Your task to perform on an android device: move a message to another label in the gmail app Image 0: 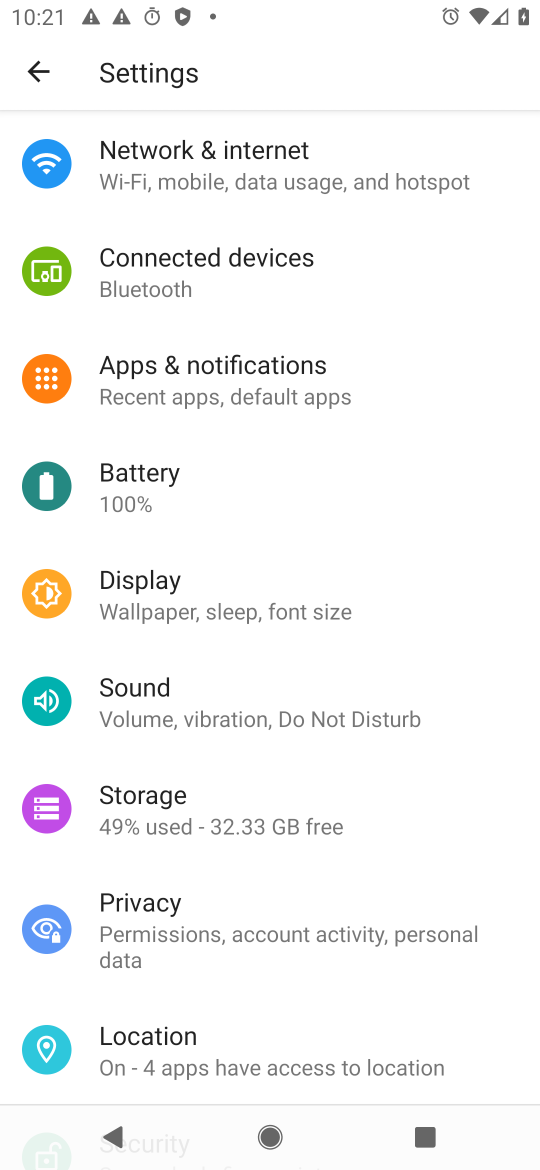
Step 0: drag from (267, 1018) to (288, 352)
Your task to perform on an android device: move a message to another label in the gmail app Image 1: 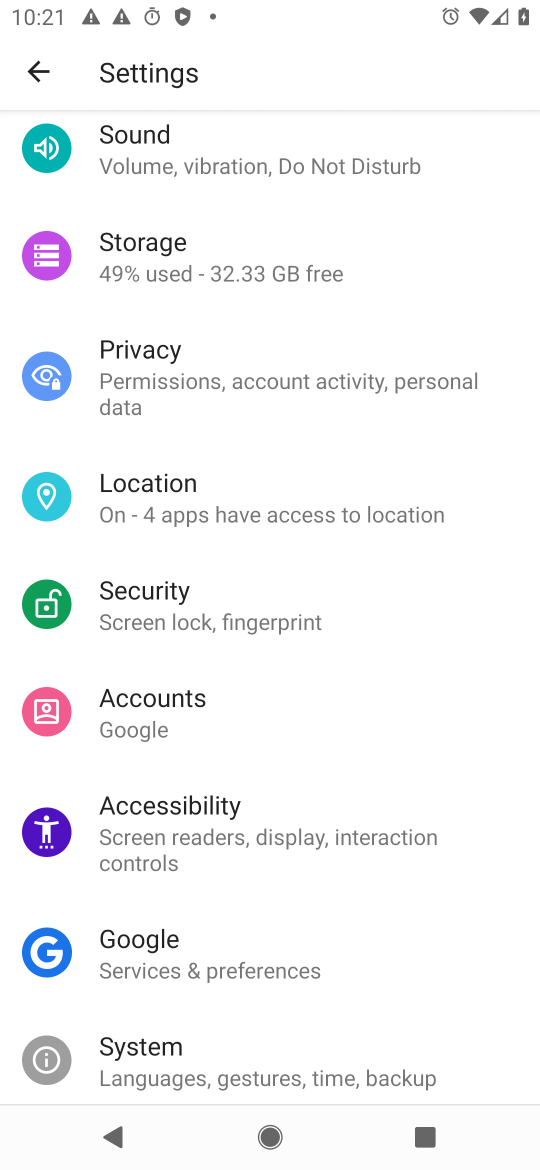
Step 1: press home button
Your task to perform on an android device: move a message to another label in the gmail app Image 2: 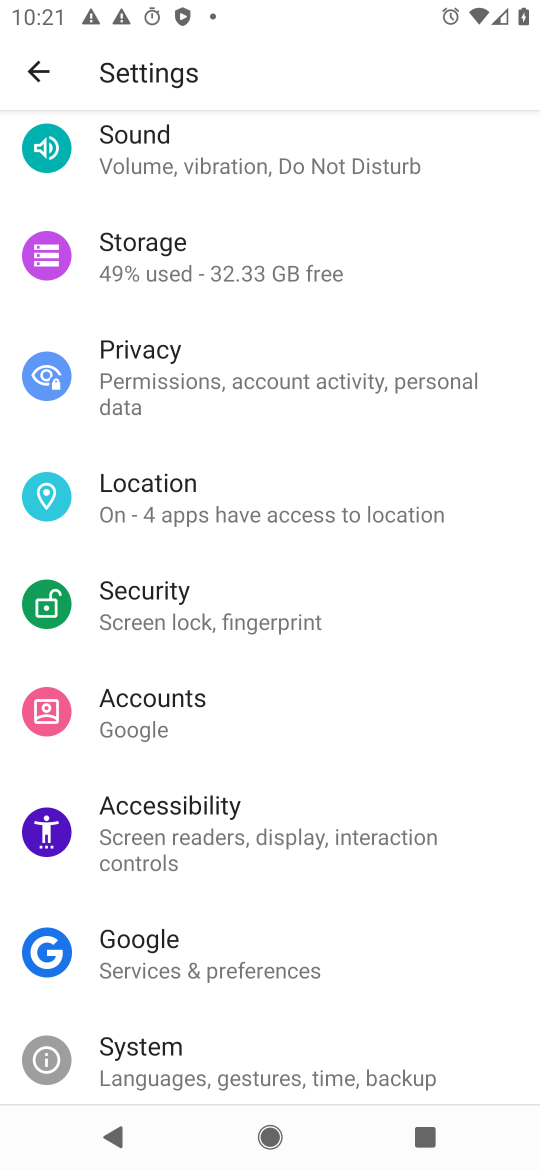
Step 2: drag from (137, 845) to (238, 219)
Your task to perform on an android device: move a message to another label in the gmail app Image 3: 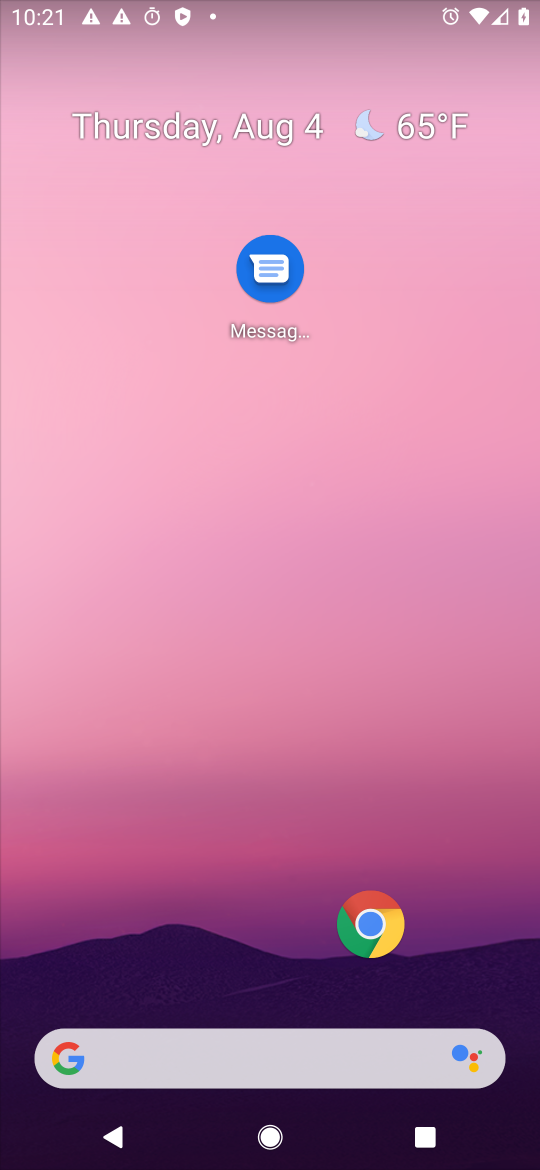
Step 3: drag from (286, 1022) to (321, 272)
Your task to perform on an android device: move a message to another label in the gmail app Image 4: 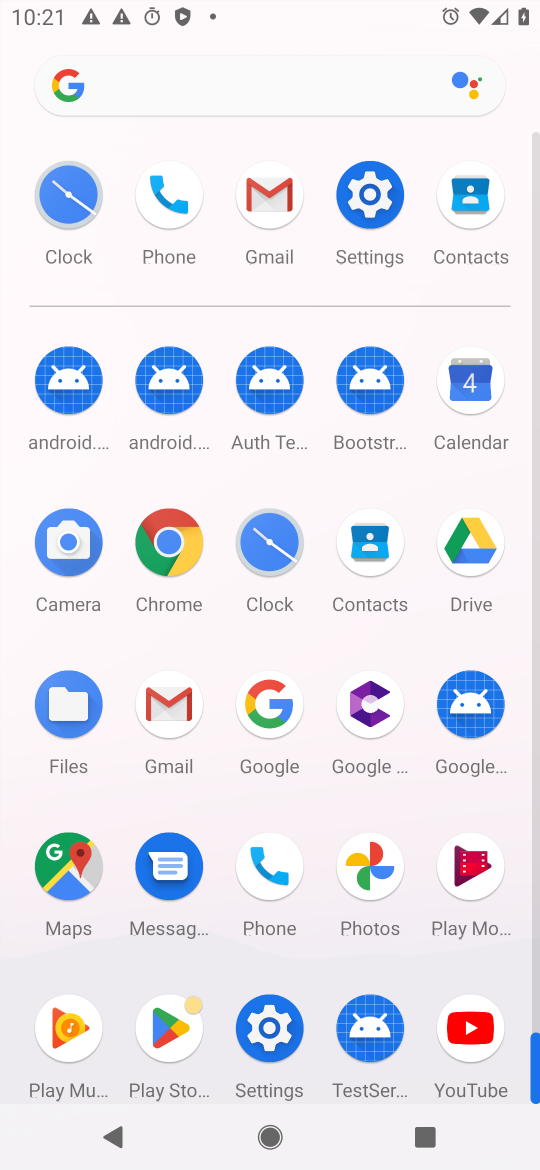
Step 4: click (167, 693)
Your task to perform on an android device: move a message to another label in the gmail app Image 5: 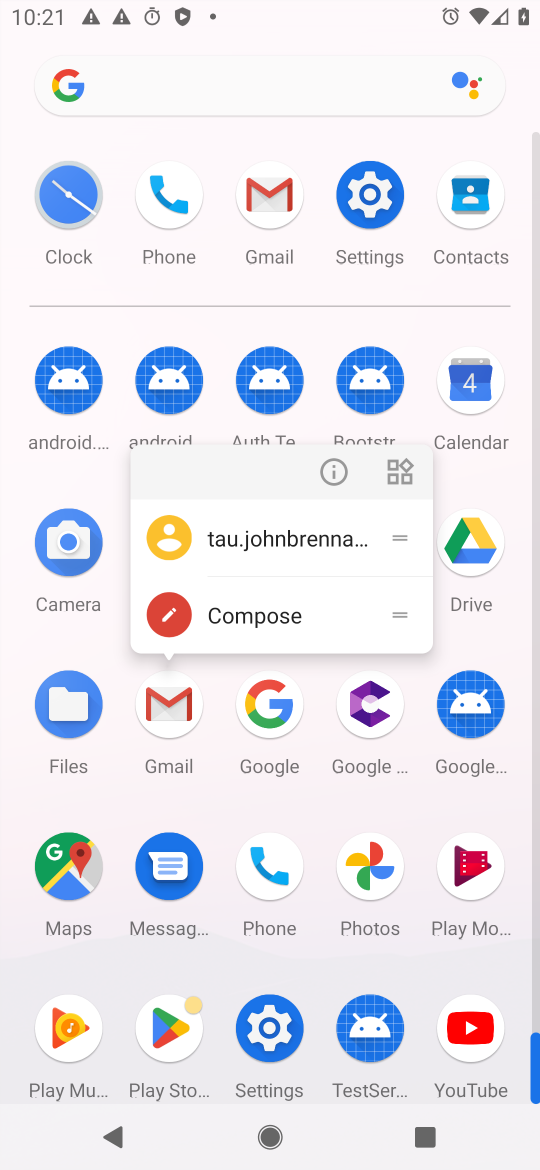
Step 5: click (320, 465)
Your task to perform on an android device: move a message to another label in the gmail app Image 6: 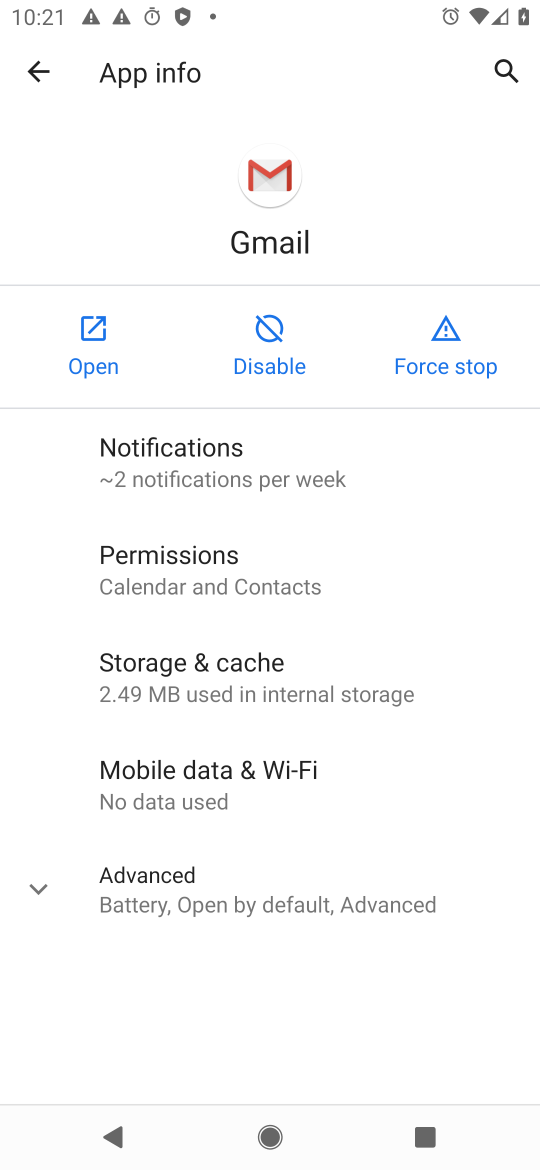
Step 6: click (80, 348)
Your task to perform on an android device: move a message to another label in the gmail app Image 7: 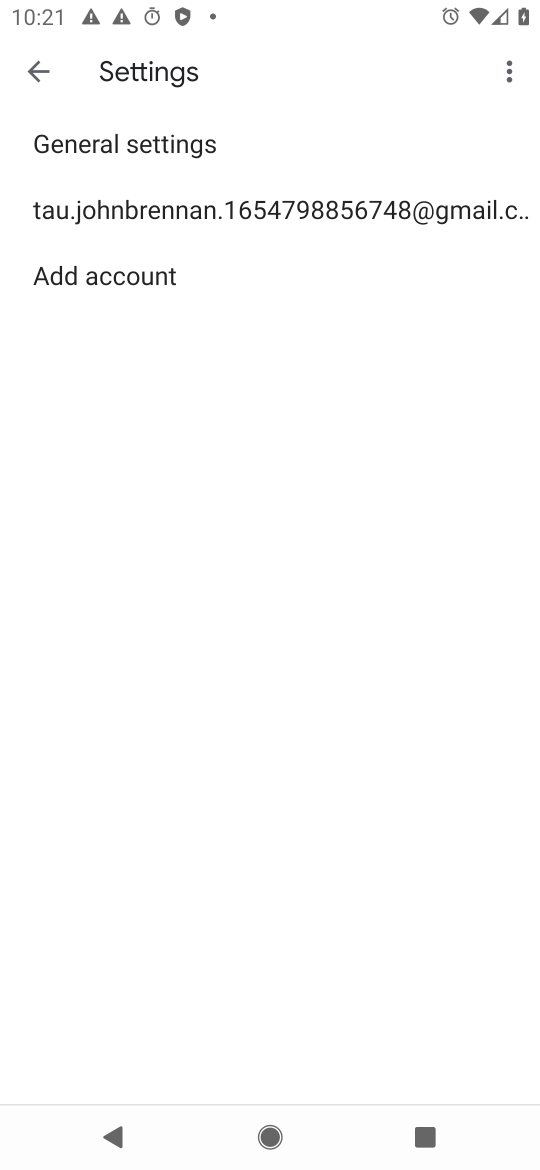
Step 7: click (51, 91)
Your task to perform on an android device: move a message to another label in the gmail app Image 8: 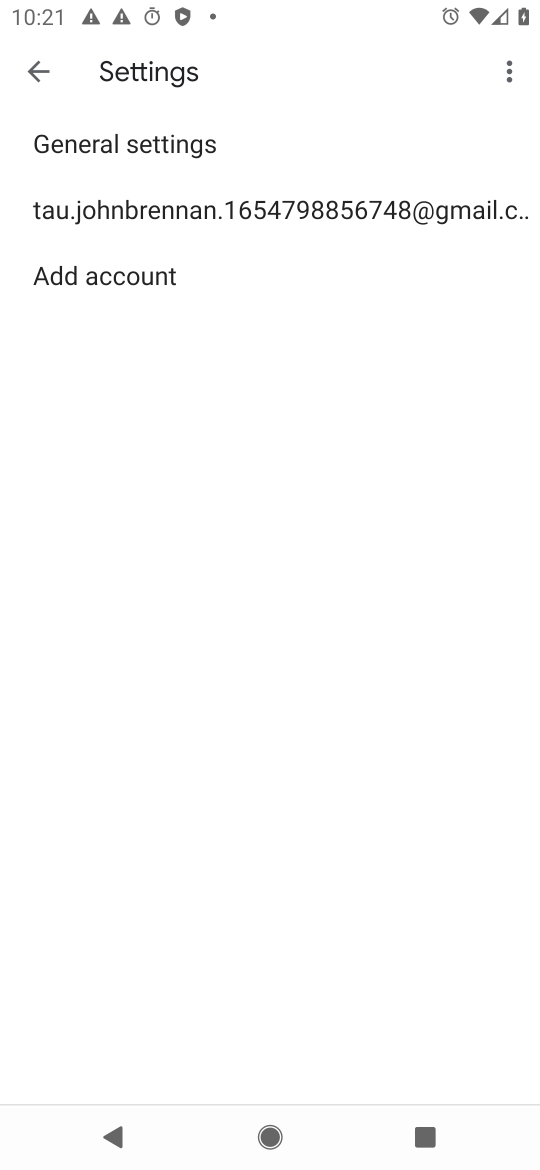
Step 8: click (41, 76)
Your task to perform on an android device: move a message to another label in the gmail app Image 9: 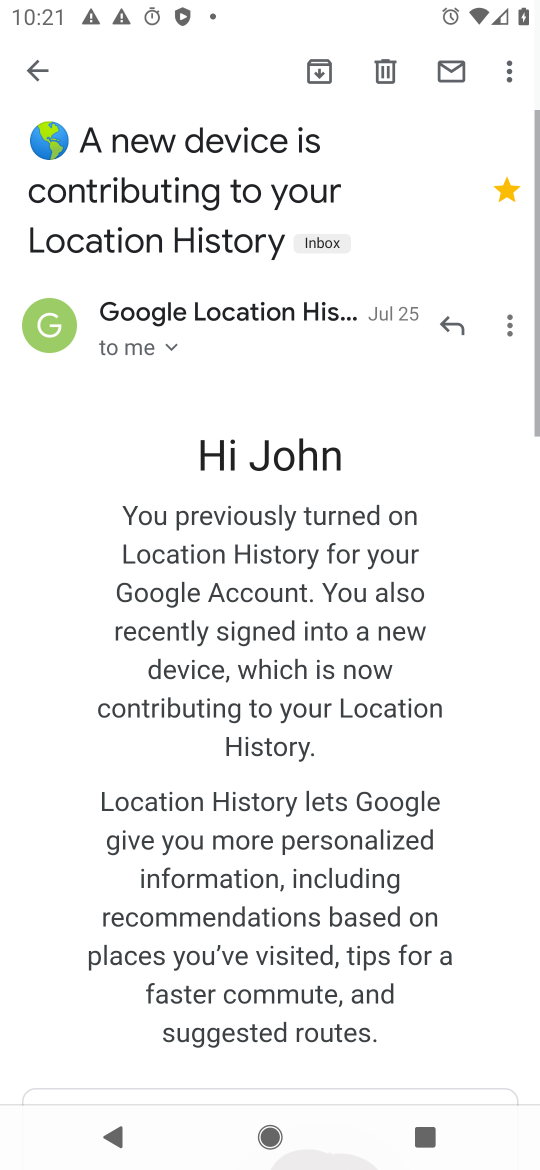
Step 9: click (46, 77)
Your task to perform on an android device: move a message to another label in the gmail app Image 10: 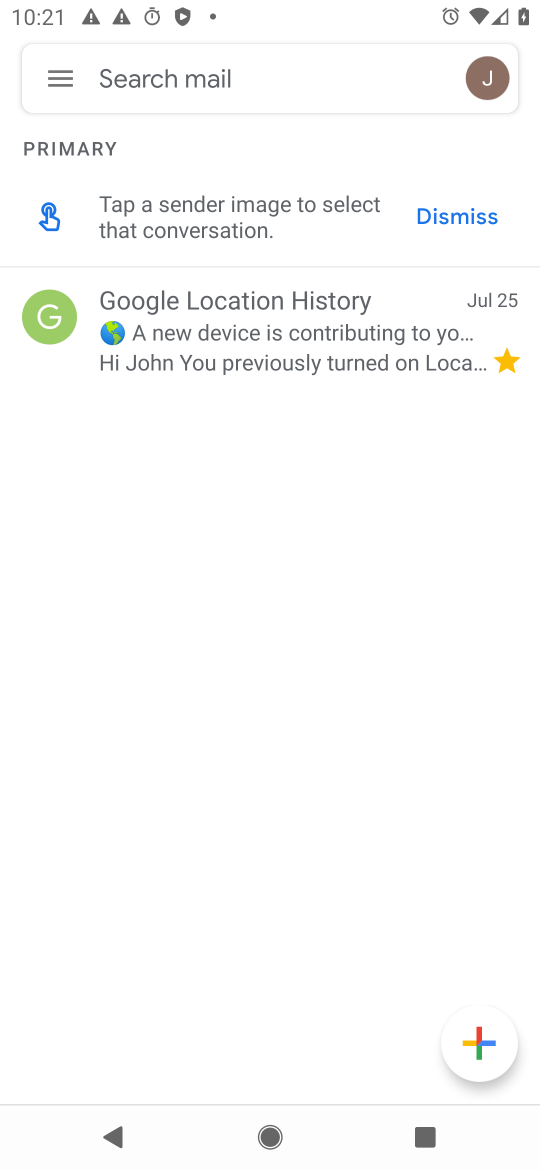
Step 10: click (501, 370)
Your task to perform on an android device: move a message to another label in the gmail app Image 11: 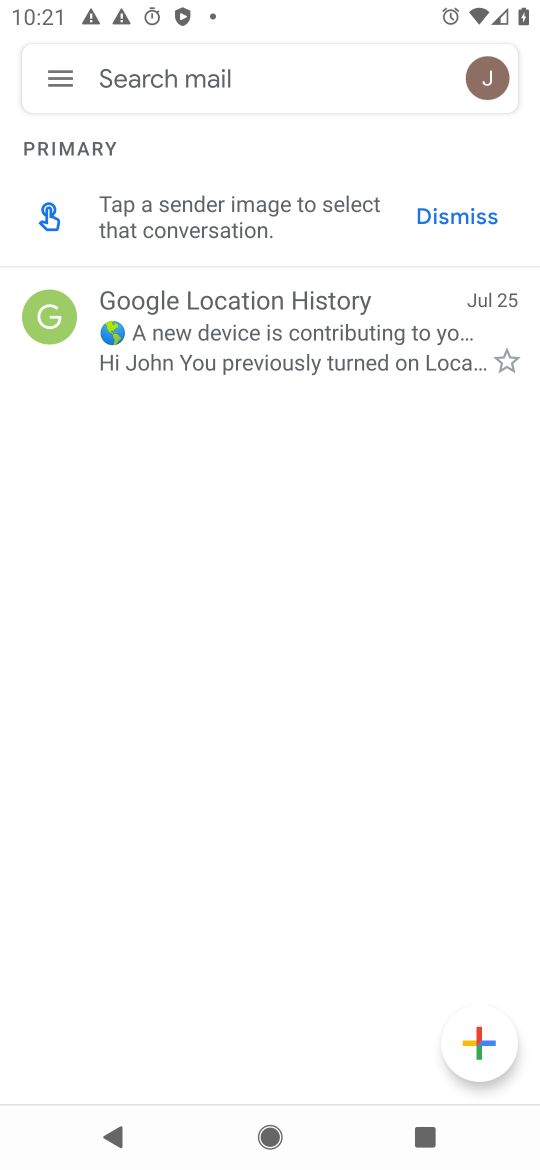
Step 11: task complete